Your task to perform on an android device: check the backup settings in the google photos Image 0: 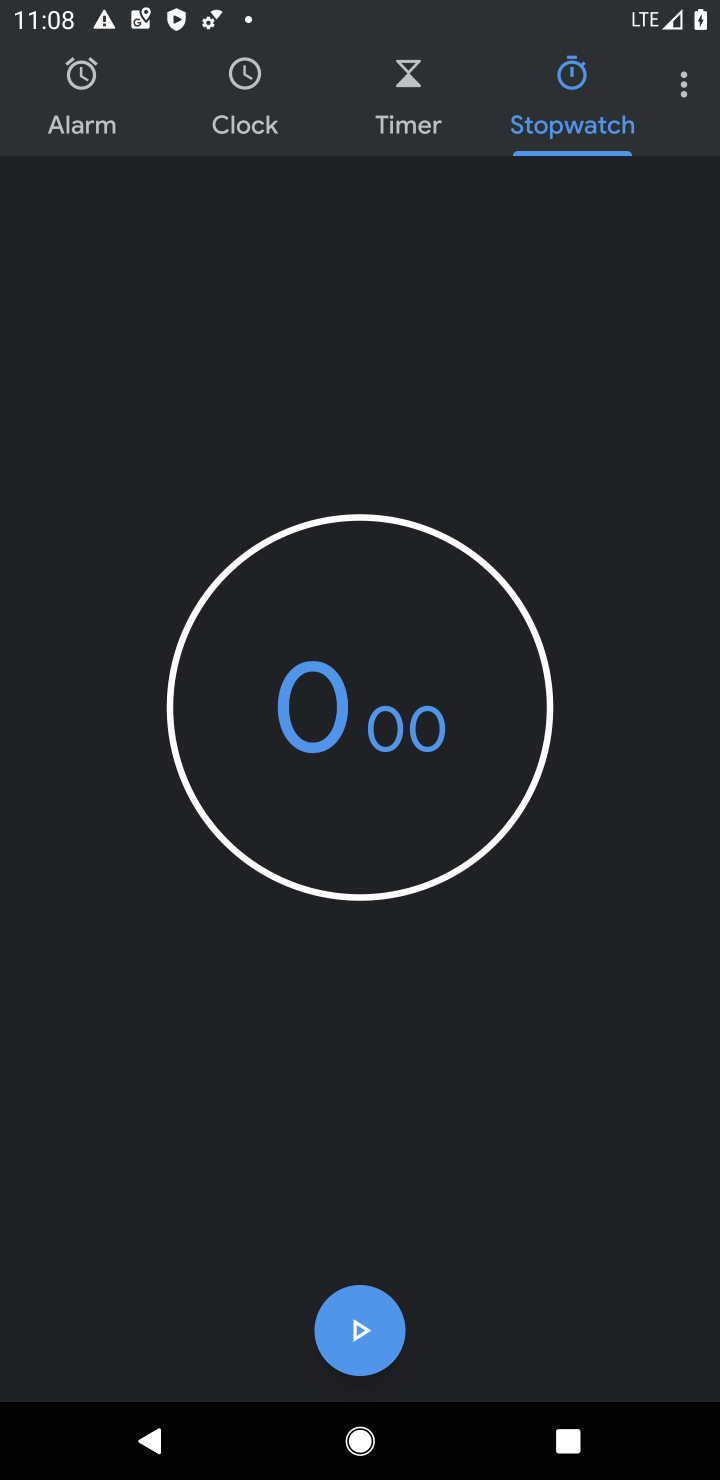
Step 0: press home button
Your task to perform on an android device: check the backup settings in the google photos Image 1: 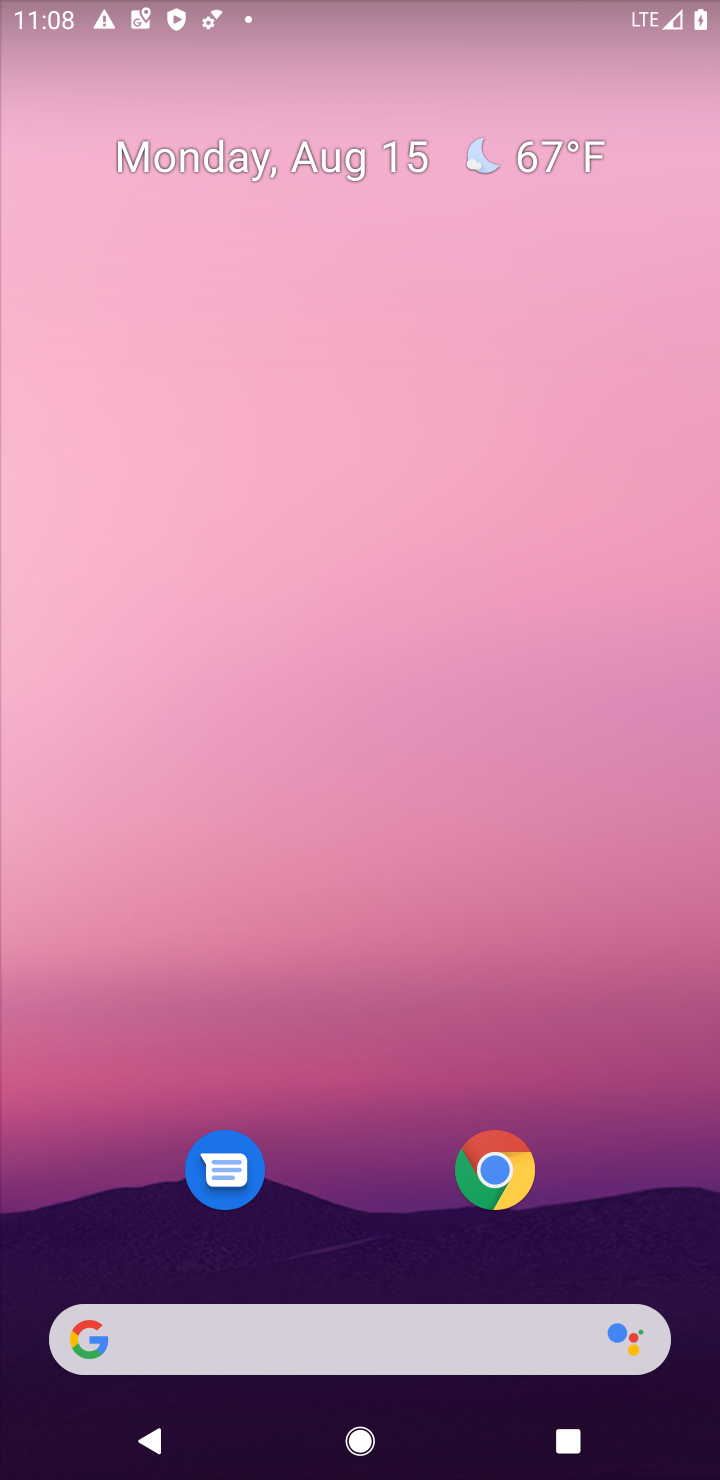
Step 1: drag from (362, 1258) to (399, 35)
Your task to perform on an android device: check the backup settings in the google photos Image 2: 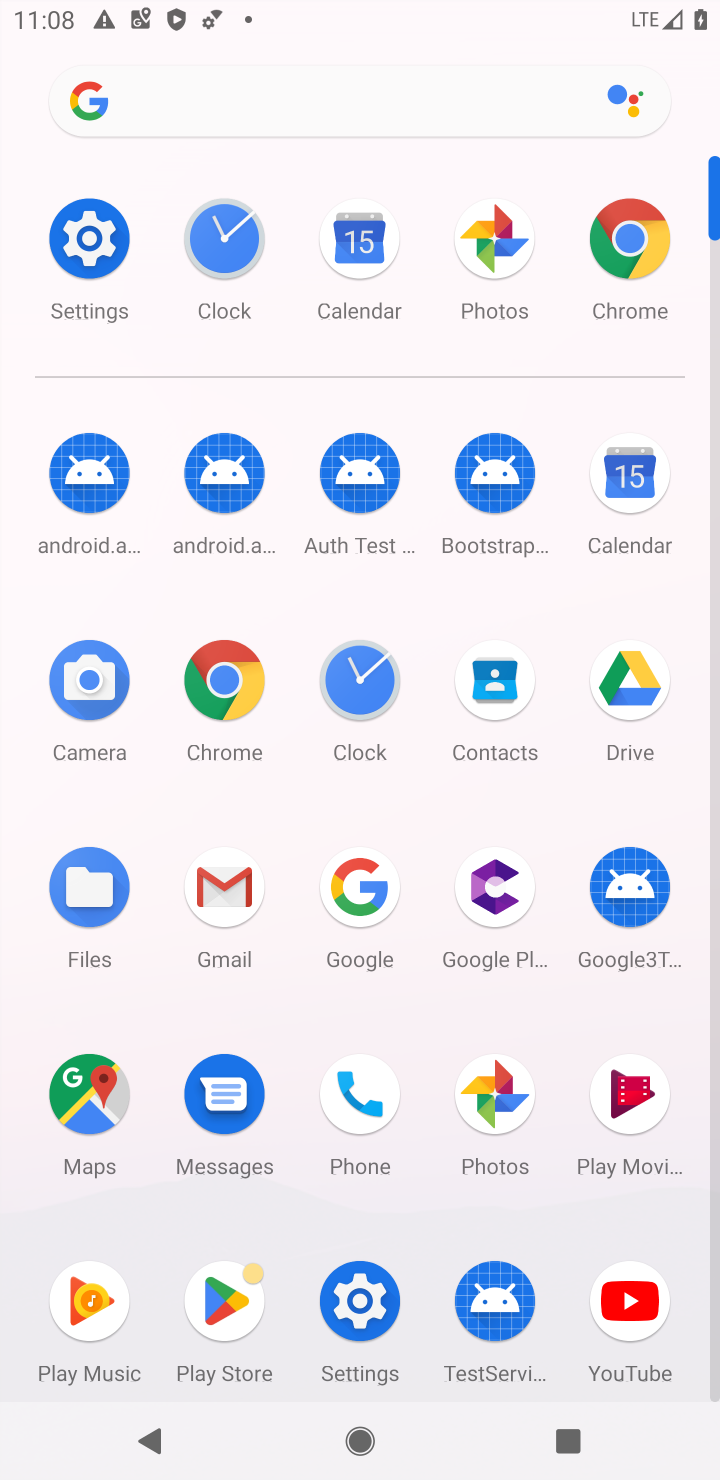
Step 2: click (491, 1088)
Your task to perform on an android device: check the backup settings in the google photos Image 3: 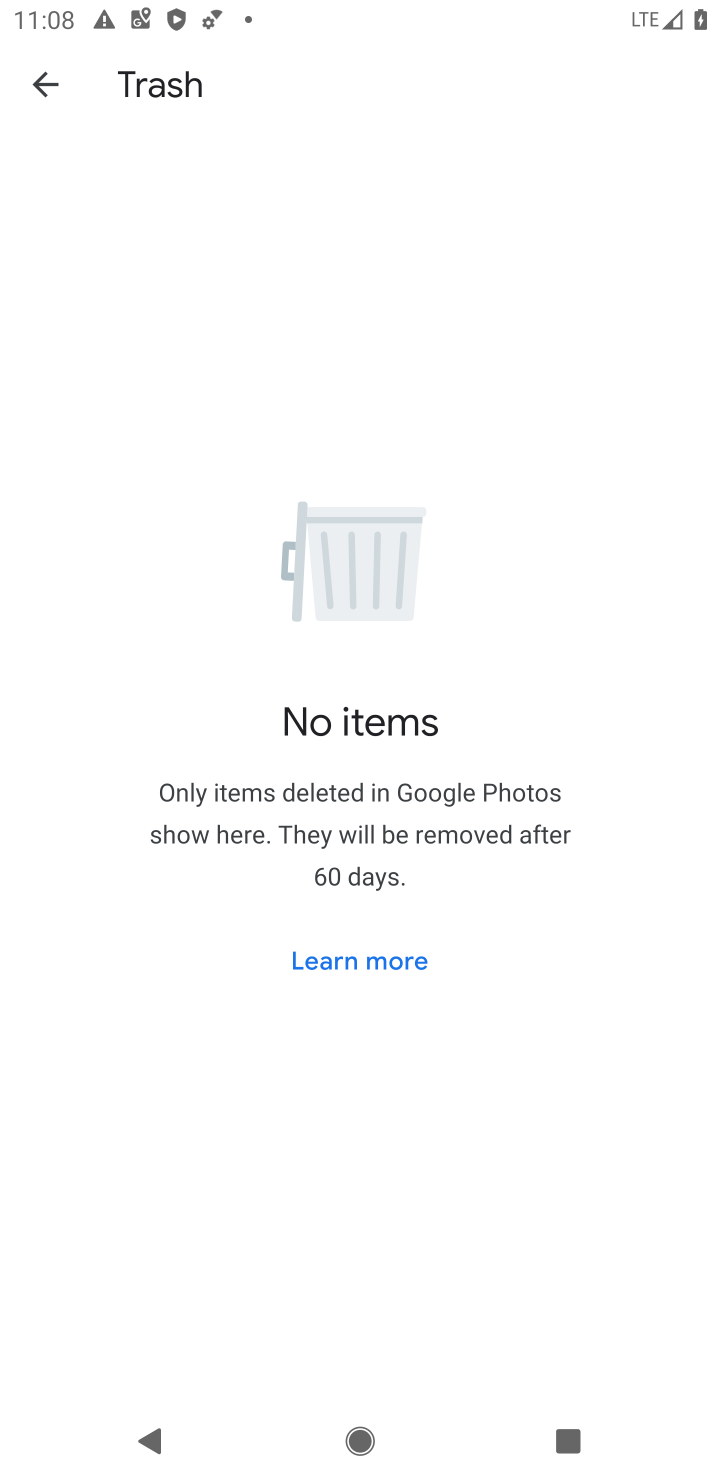
Step 3: click (38, 76)
Your task to perform on an android device: check the backup settings in the google photos Image 4: 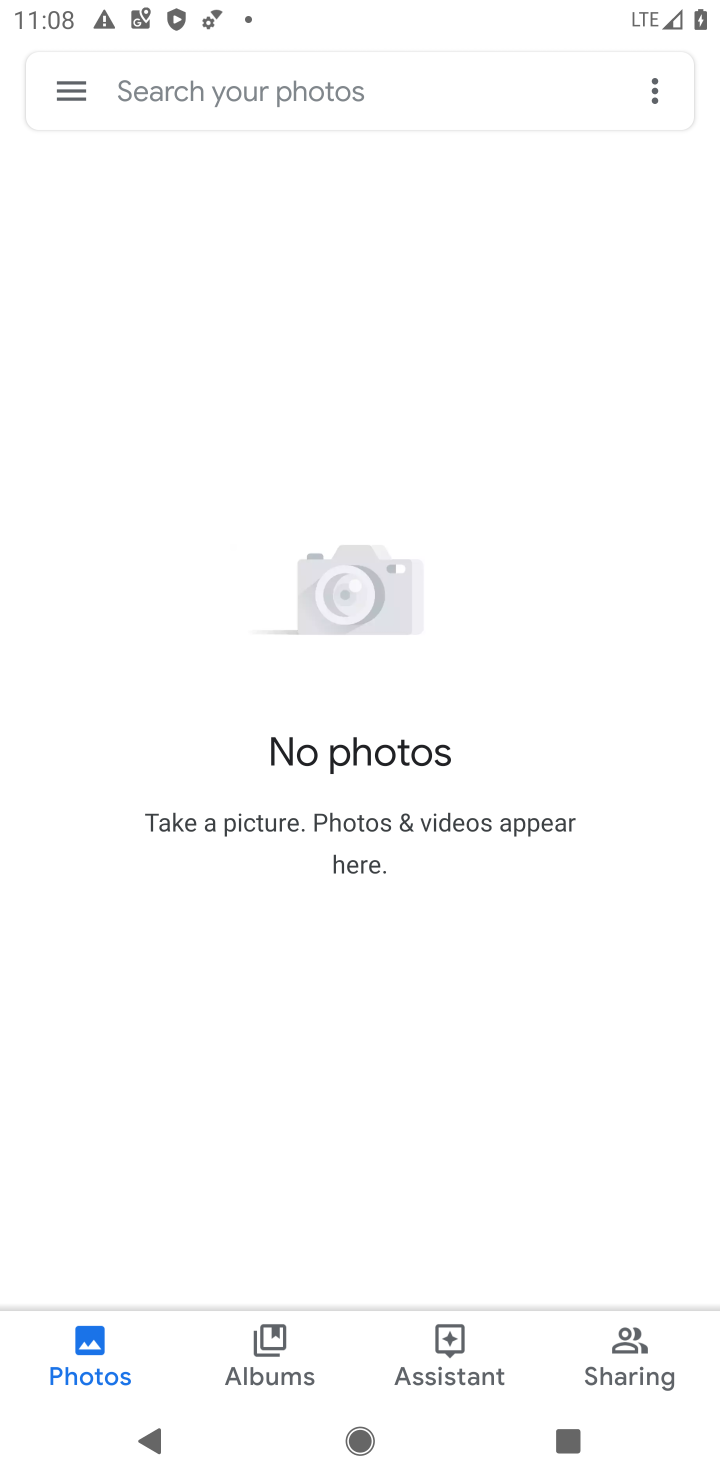
Step 4: click (68, 84)
Your task to perform on an android device: check the backup settings in the google photos Image 5: 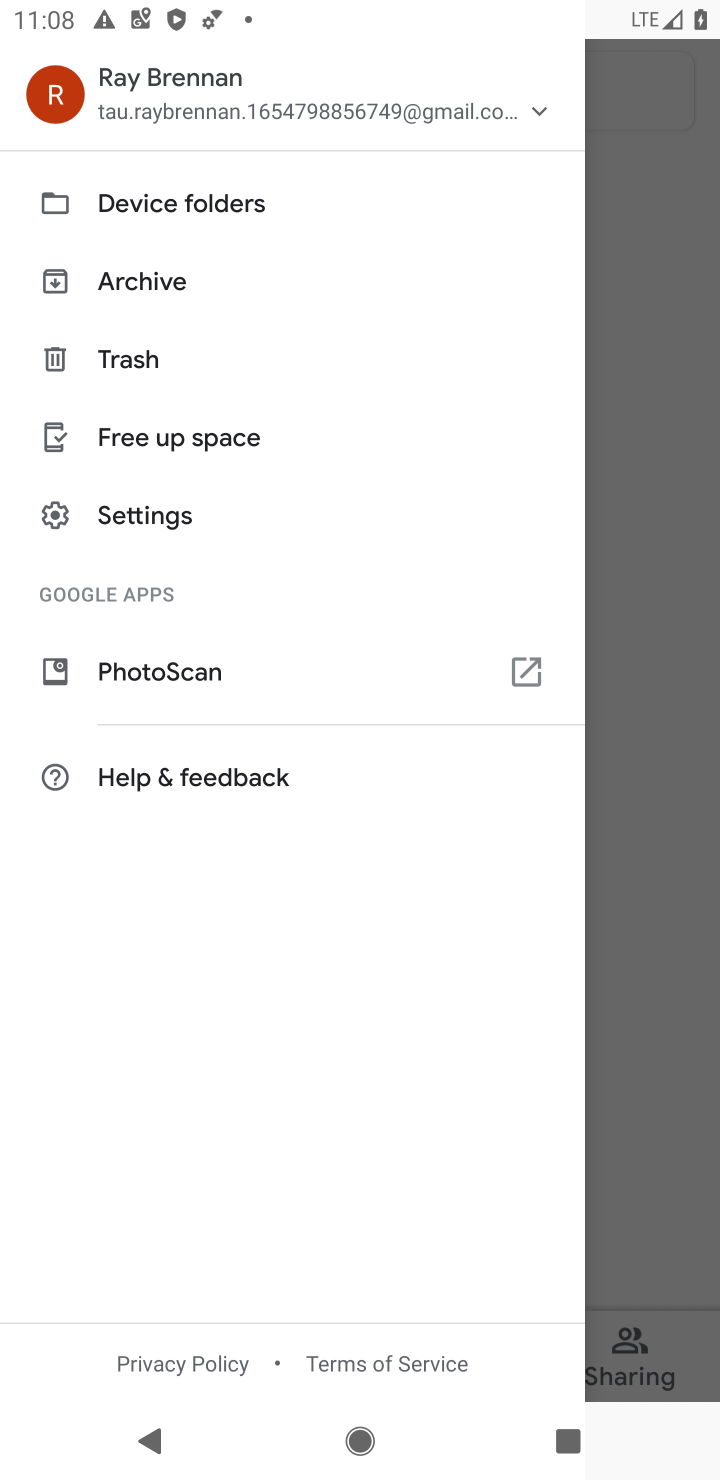
Step 5: click (215, 513)
Your task to perform on an android device: check the backup settings in the google photos Image 6: 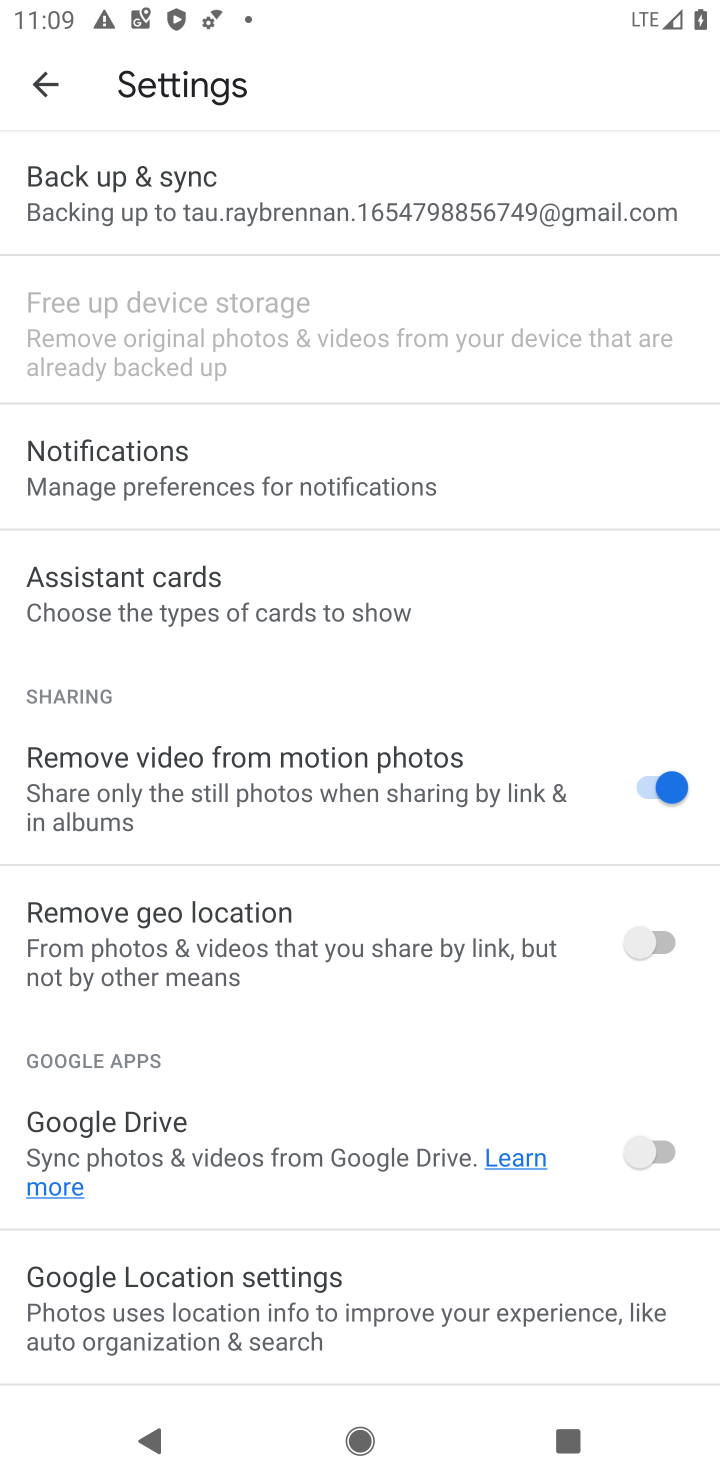
Step 6: click (243, 184)
Your task to perform on an android device: check the backup settings in the google photos Image 7: 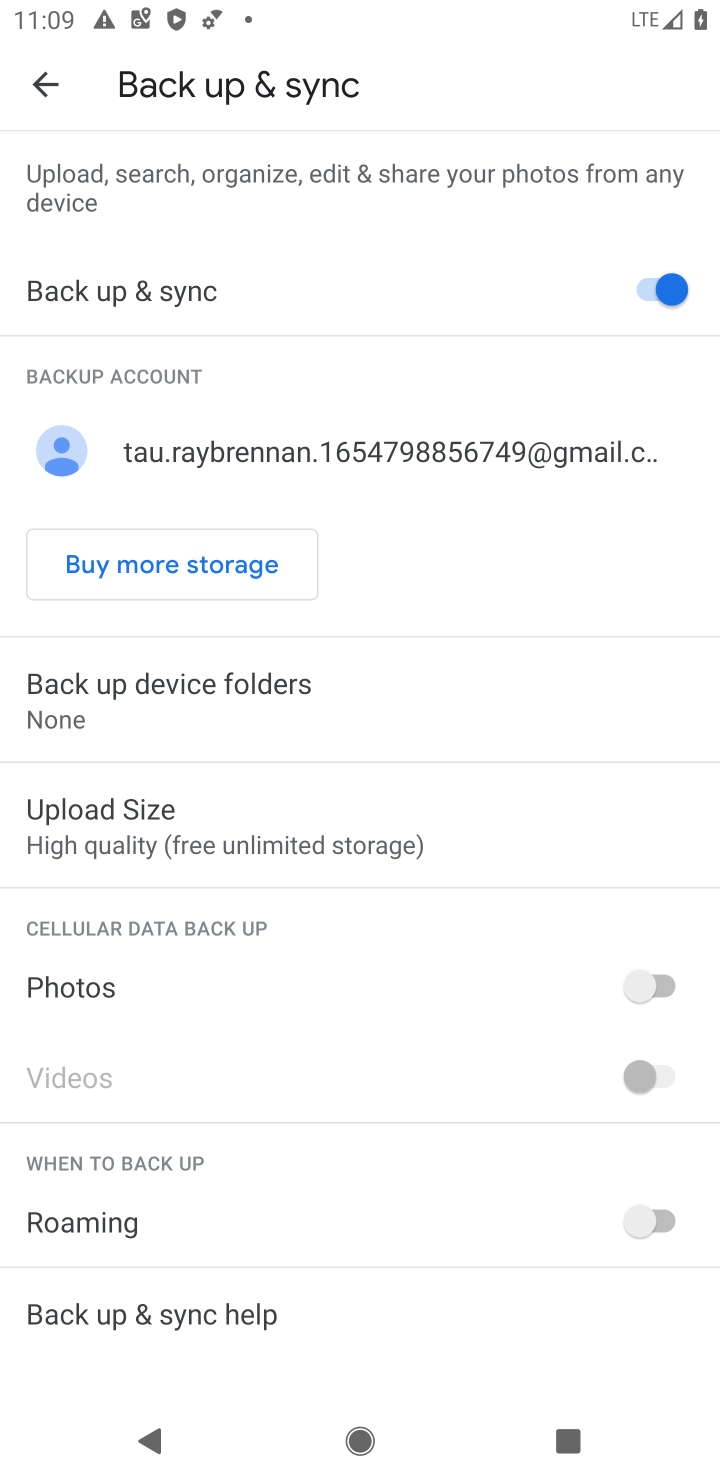
Step 7: task complete